Your task to perform on an android device: turn off priority inbox in the gmail app Image 0: 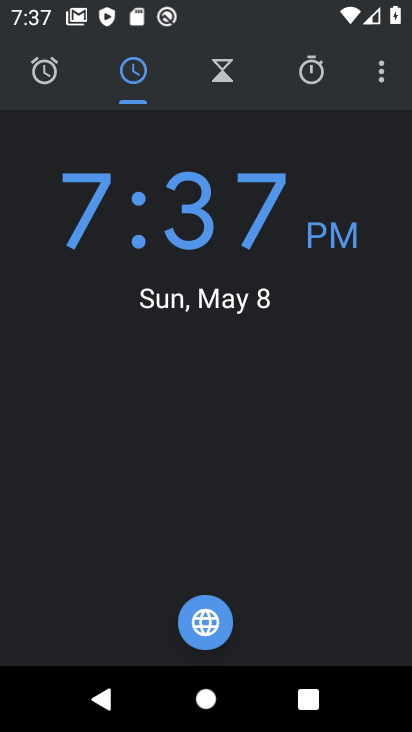
Step 0: press home button
Your task to perform on an android device: turn off priority inbox in the gmail app Image 1: 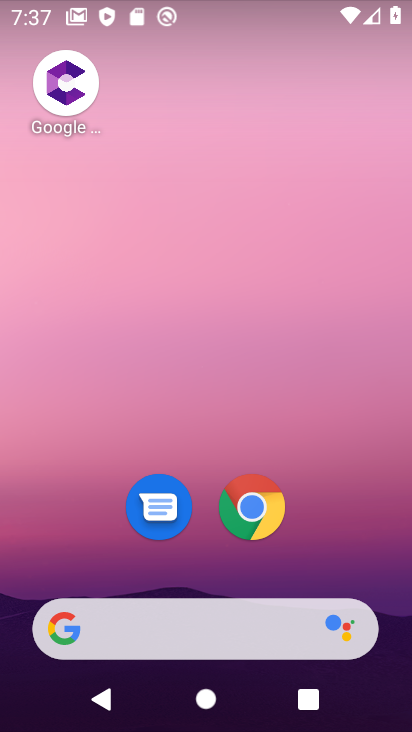
Step 1: drag from (118, 486) to (165, 24)
Your task to perform on an android device: turn off priority inbox in the gmail app Image 2: 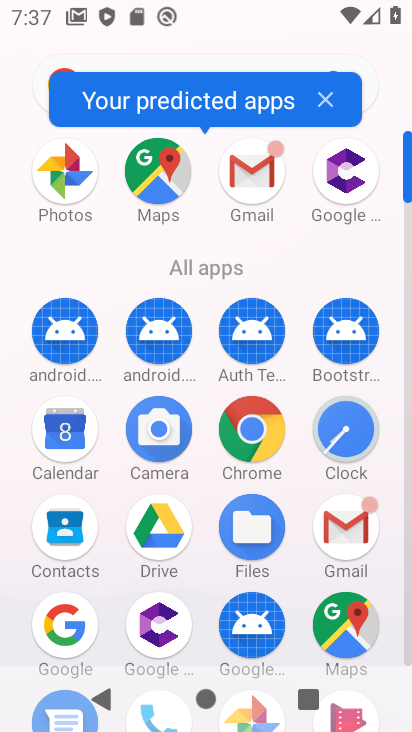
Step 2: click (356, 525)
Your task to perform on an android device: turn off priority inbox in the gmail app Image 3: 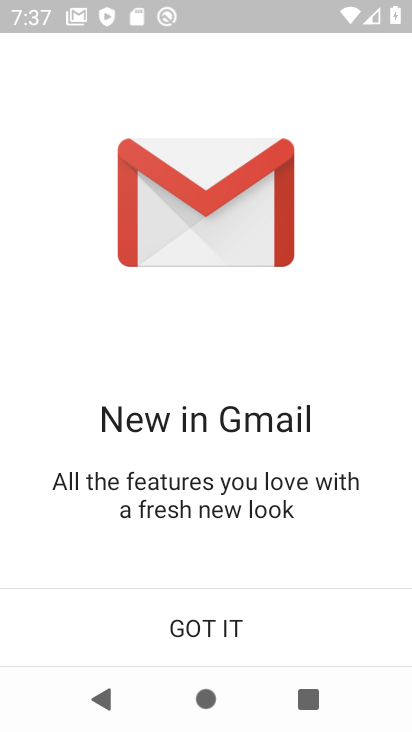
Step 3: click (157, 638)
Your task to perform on an android device: turn off priority inbox in the gmail app Image 4: 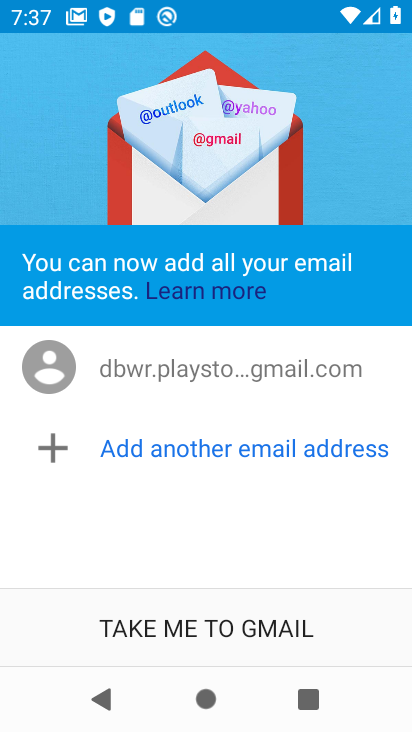
Step 4: click (222, 621)
Your task to perform on an android device: turn off priority inbox in the gmail app Image 5: 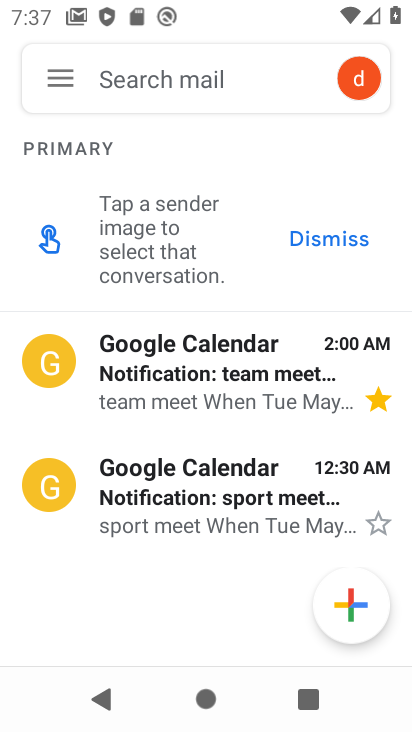
Step 5: click (58, 85)
Your task to perform on an android device: turn off priority inbox in the gmail app Image 6: 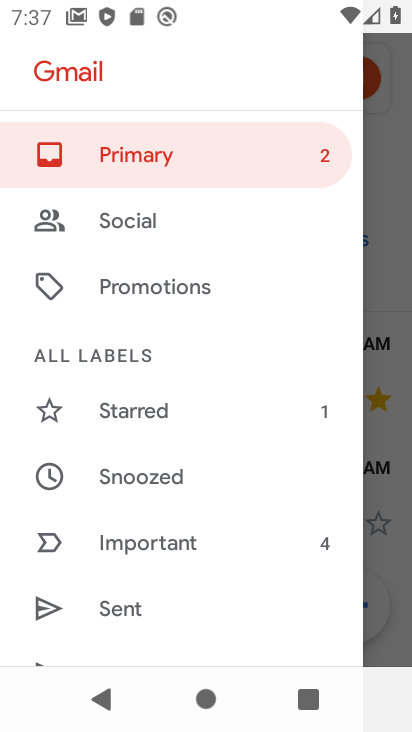
Step 6: drag from (157, 592) to (305, 18)
Your task to perform on an android device: turn off priority inbox in the gmail app Image 7: 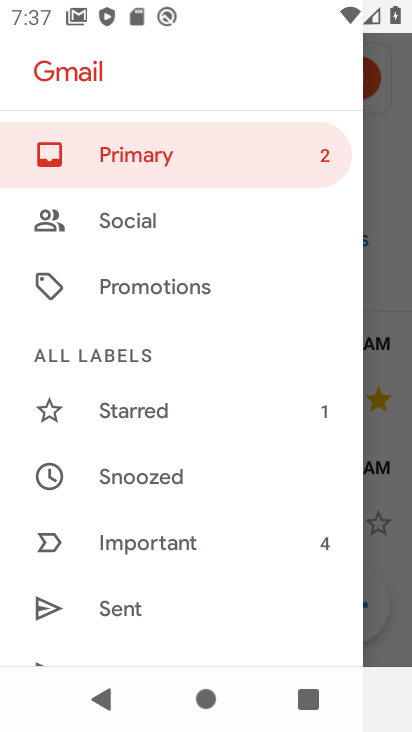
Step 7: click (180, 56)
Your task to perform on an android device: turn off priority inbox in the gmail app Image 8: 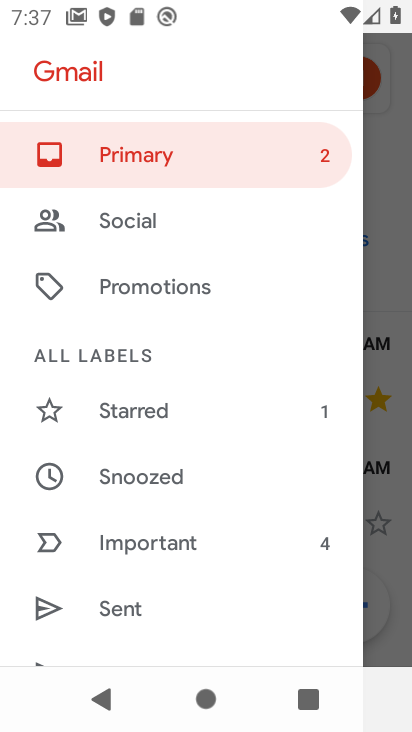
Step 8: drag from (221, 30) to (114, 50)
Your task to perform on an android device: turn off priority inbox in the gmail app Image 9: 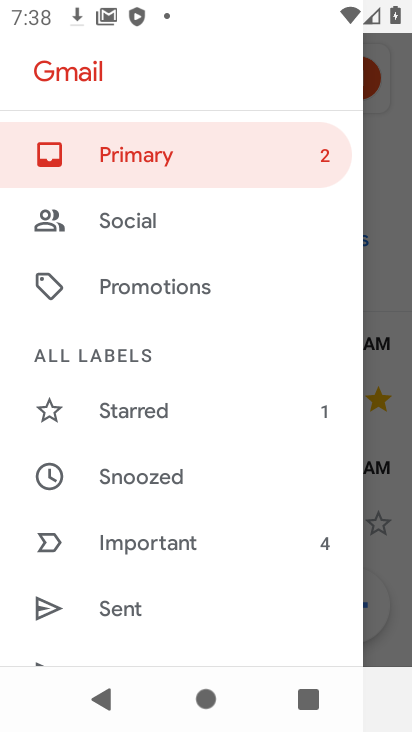
Step 9: drag from (123, 571) to (225, 75)
Your task to perform on an android device: turn off priority inbox in the gmail app Image 10: 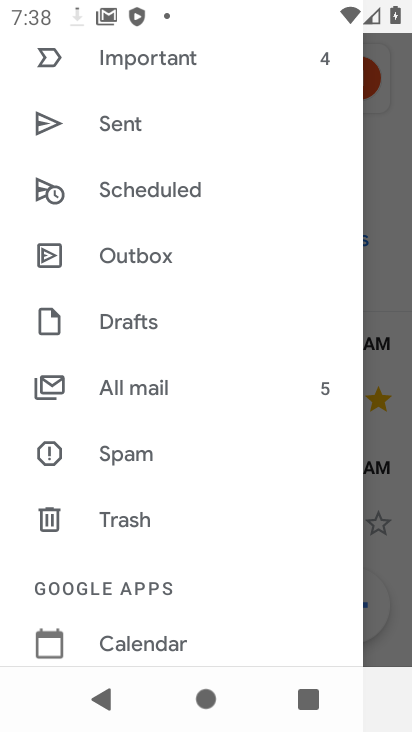
Step 10: drag from (160, 589) to (261, 7)
Your task to perform on an android device: turn off priority inbox in the gmail app Image 11: 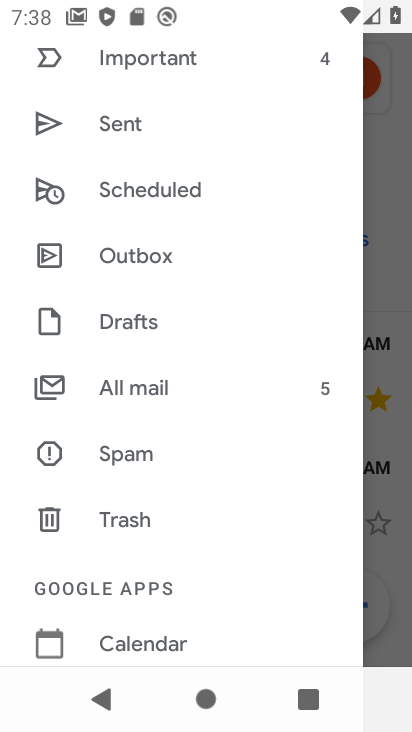
Step 11: drag from (253, 622) to (364, 35)
Your task to perform on an android device: turn off priority inbox in the gmail app Image 12: 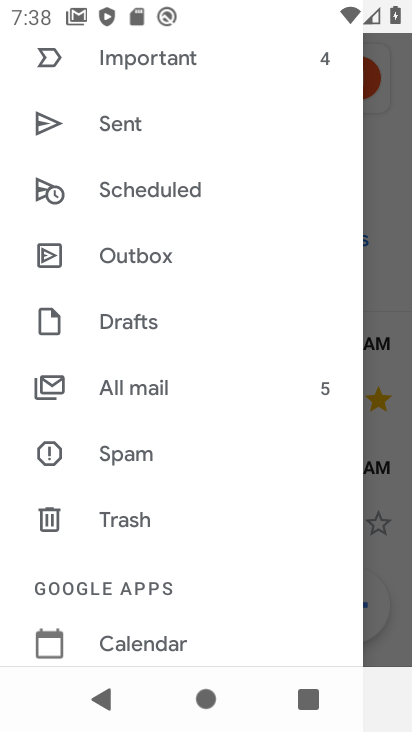
Step 12: drag from (147, 638) to (371, 26)
Your task to perform on an android device: turn off priority inbox in the gmail app Image 13: 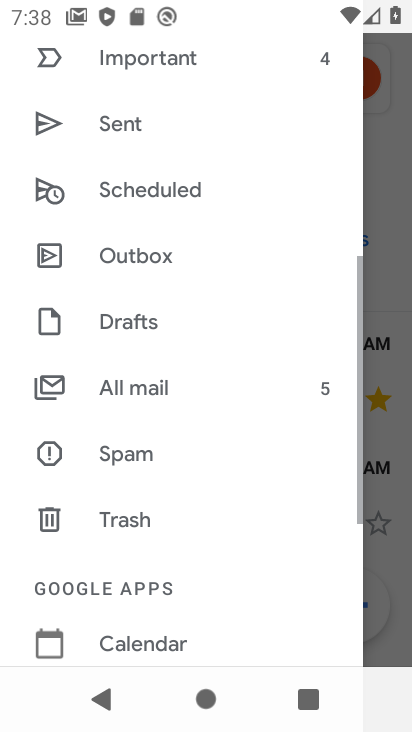
Step 13: drag from (167, 598) to (346, 43)
Your task to perform on an android device: turn off priority inbox in the gmail app Image 14: 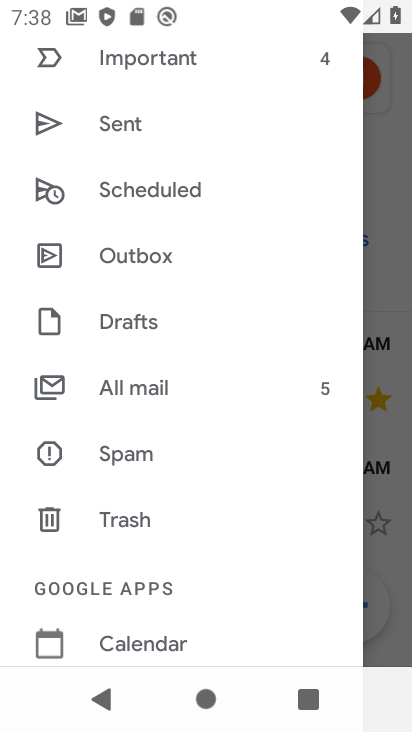
Step 14: drag from (265, 593) to (250, 68)
Your task to perform on an android device: turn off priority inbox in the gmail app Image 15: 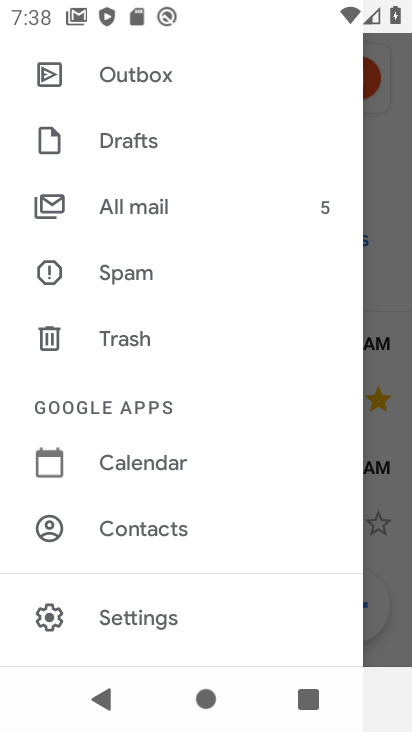
Step 15: click (115, 615)
Your task to perform on an android device: turn off priority inbox in the gmail app Image 16: 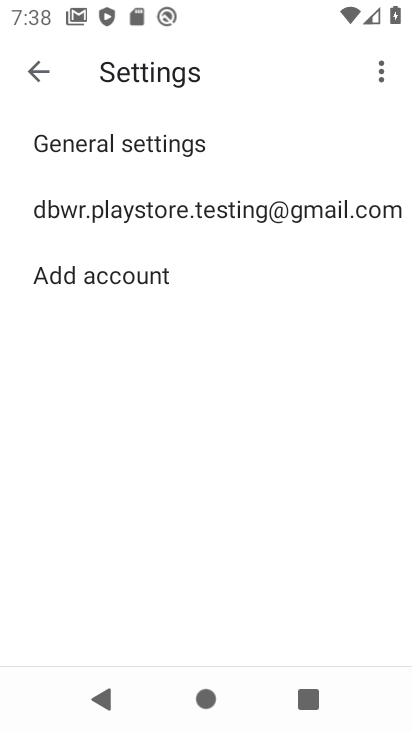
Step 16: click (196, 211)
Your task to perform on an android device: turn off priority inbox in the gmail app Image 17: 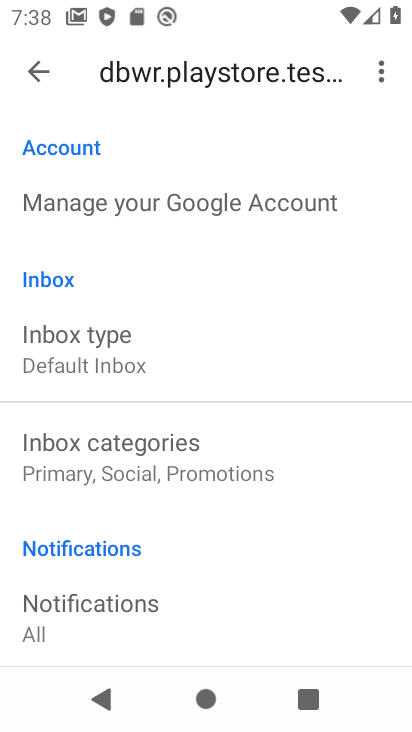
Step 17: click (115, 335)
Your task to perform on an android device: turn off priority inbox in the gmail app Image 18: 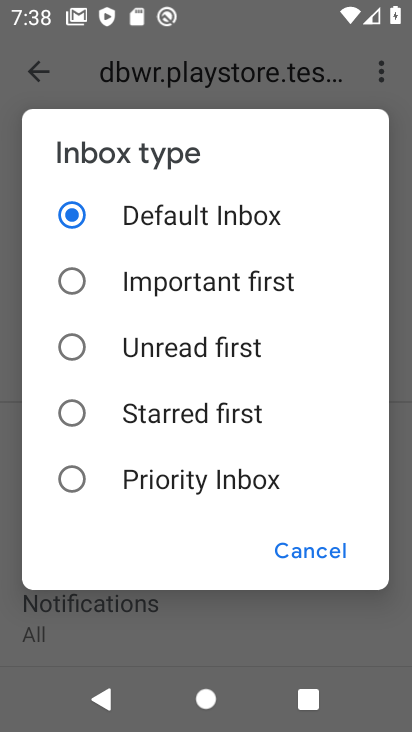
Step 18: click (186, 480)
Your task to perform on an android device: turn off priority inbox in the gmail app Image 19: 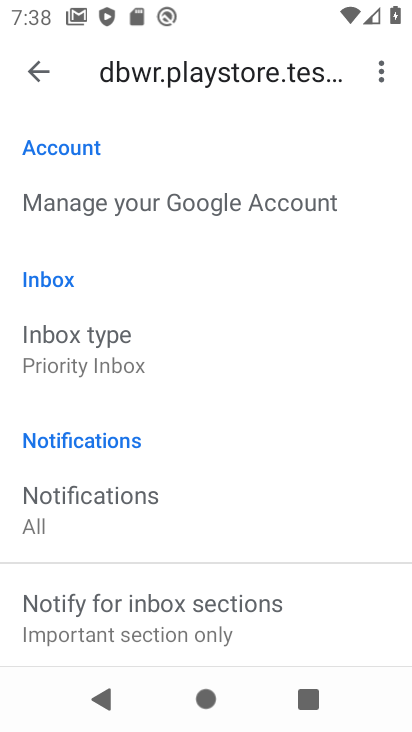
Step 19: task complete